Your task to perform on an android device: turn on location history Image 0: 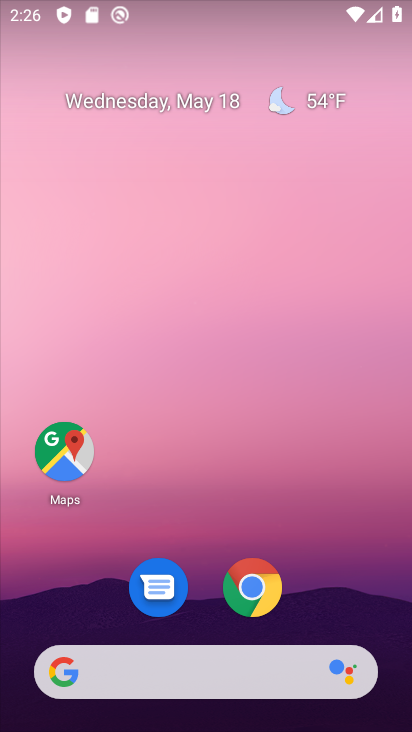
Step 0: drag from (356, 598) to (298, 31)
Your task to perform on an android device: turn on location history Image 1: 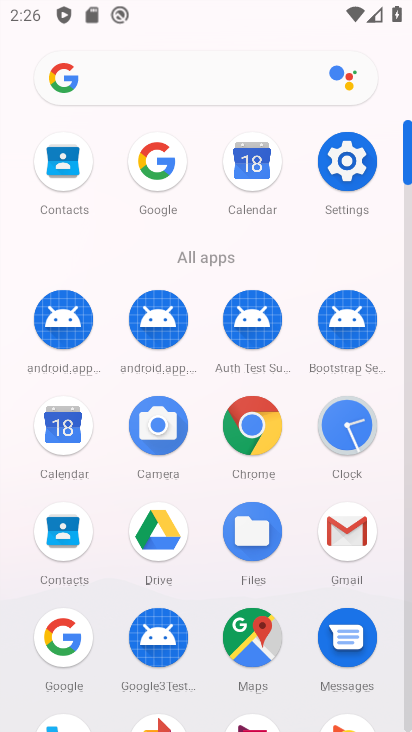
Step 1: click (341, 183)
Your task to perform on an android device: turn on location history Image 2: 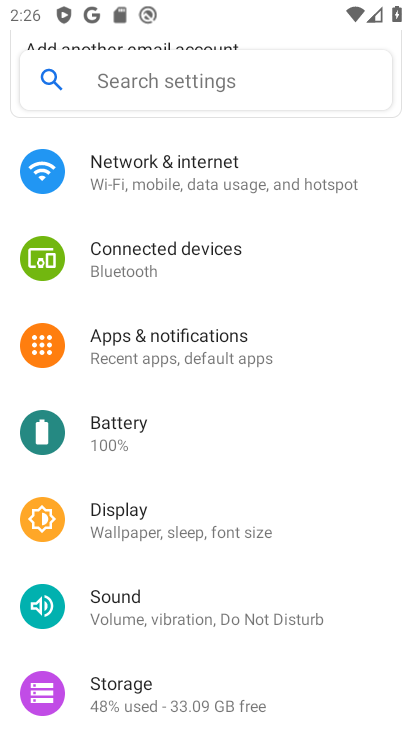
Step 2: drag from (265, 581) to (252, 203)
Your task to perform on an android device: turn on location history Image 3: 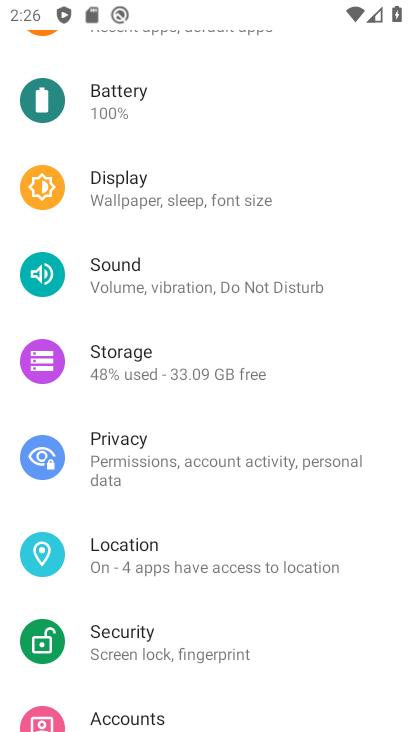
Step 3: click (215, 550)
Your task to perform on an android device: turn on location history Image 4: 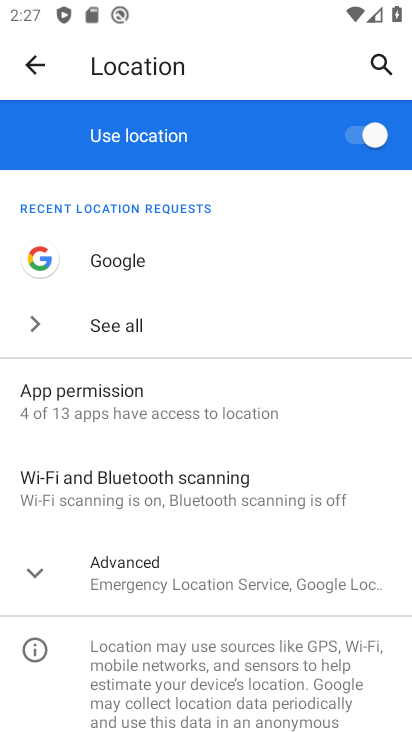
Step 4: click (204, 562)
Your task to perform on an android device: turn on location history Image 5: 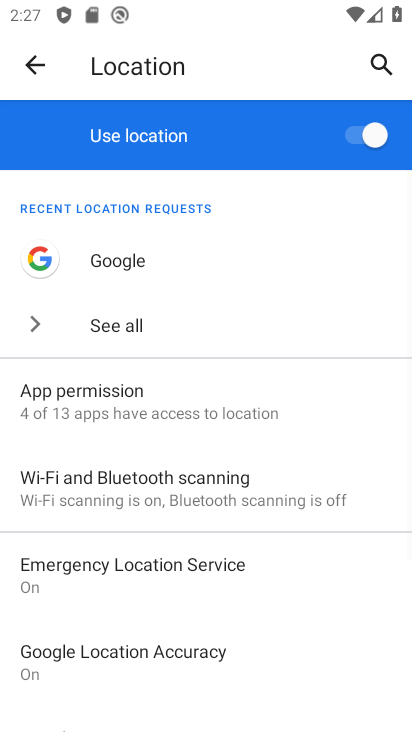
Step 5: drag from (200, 631) to (218, 181)
Your task to perform on an android device: turn on location history Image 6: 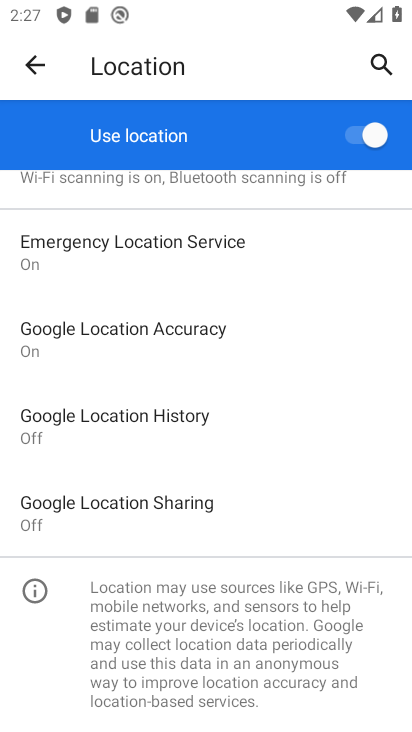
Step 6: click (219, 419)
Your task to perform on an android device: turn on location history Image 7: 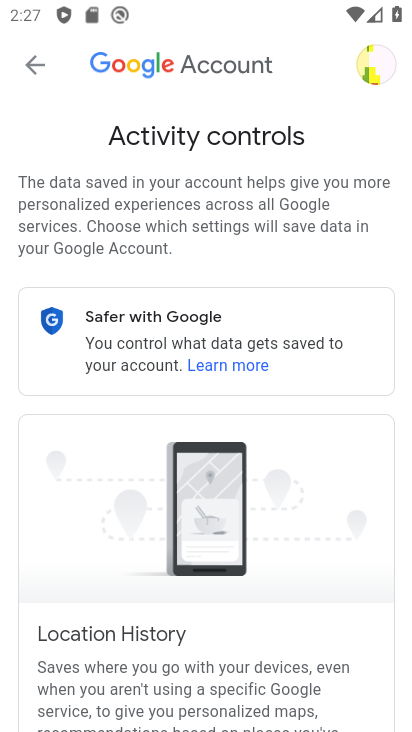
Step 7: drag from (209, 483) to (235, 124)
Your task to perform on an android device: turn on location history Image 8: 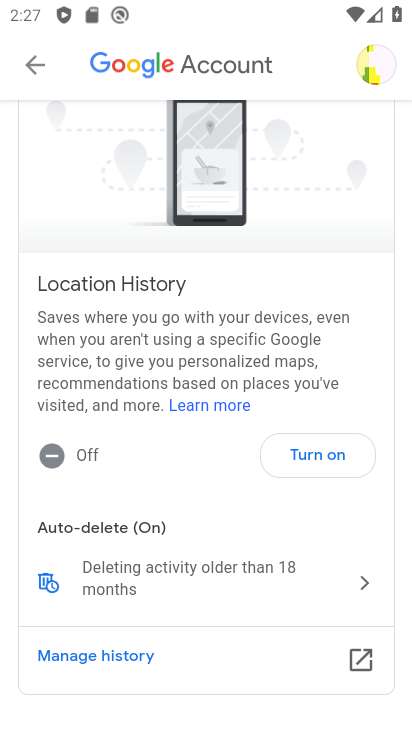
Step 8: click (309, 464)
Your task to perform on an android device: turn on location history Image 9: 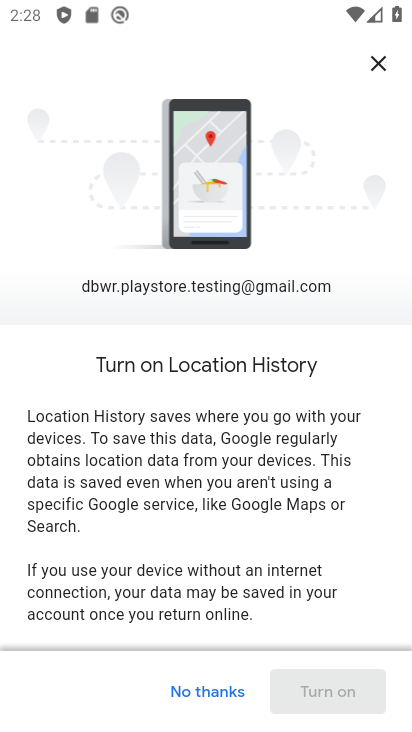
Step 9: drag from (298, 541) to (301, 250)
Your task to perform on an android device: turn on location history Image 10: 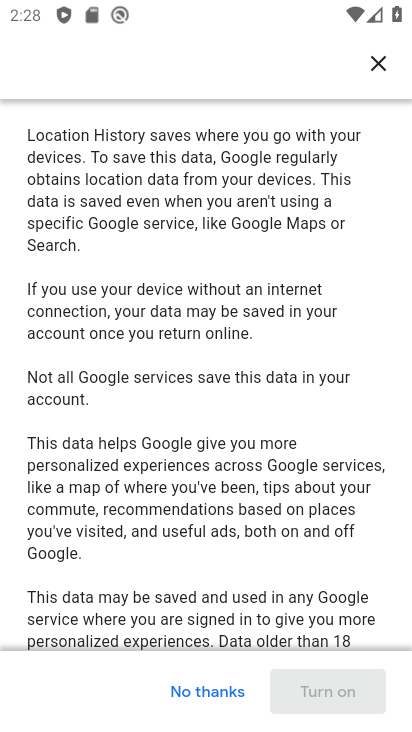
Step 10: drag from (289, 551) to (345, 247)
Your task to perform on an android device: turn on location history Image 11: 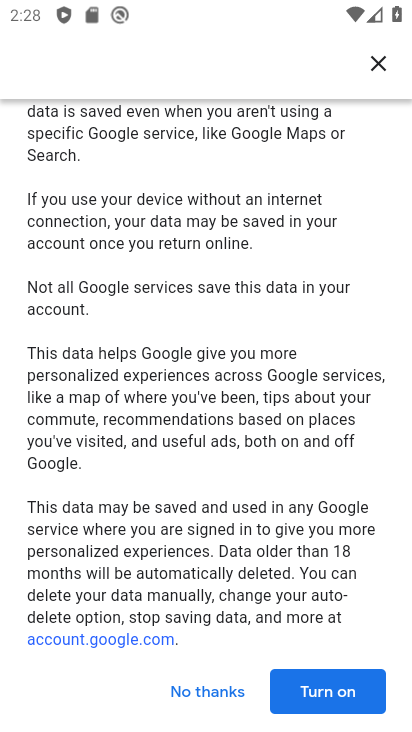
Step 11: click (347, 692)
Your task to perform on an android device: turn on location history Image 12: 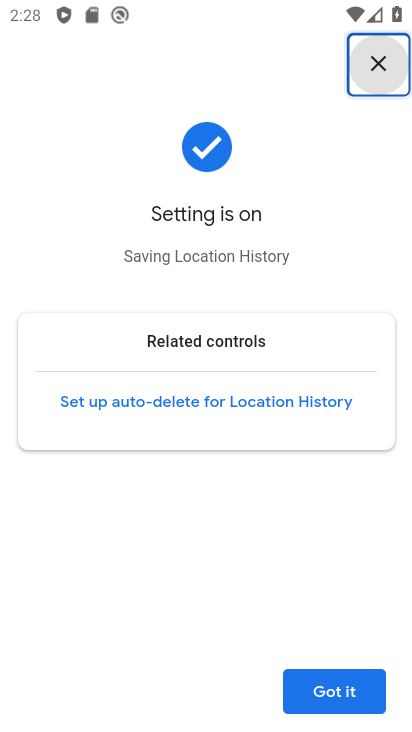
Step 12: click (318, 691)
Your task to perform on an android device: turn on location history Image 13: 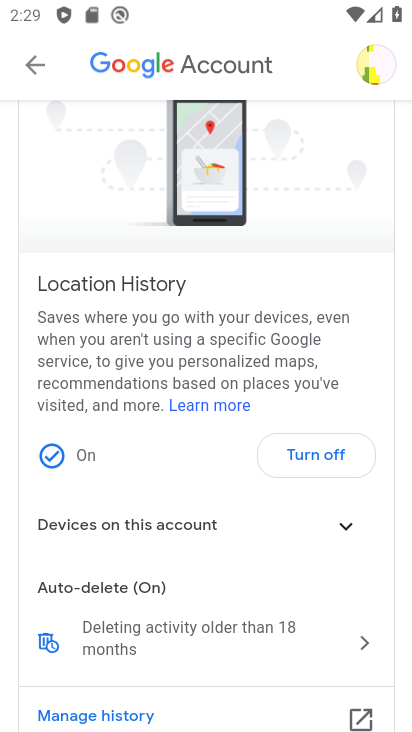
Step 13: task complete